Your task to perform on an android device: set the timer Image 0: 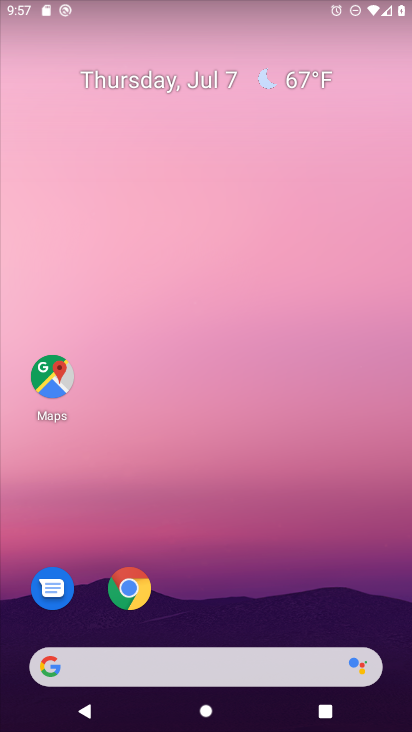
Step 0: drag from (228, 608) to (224, 20)
Your task to perform on an android device: set the timer Image 1: 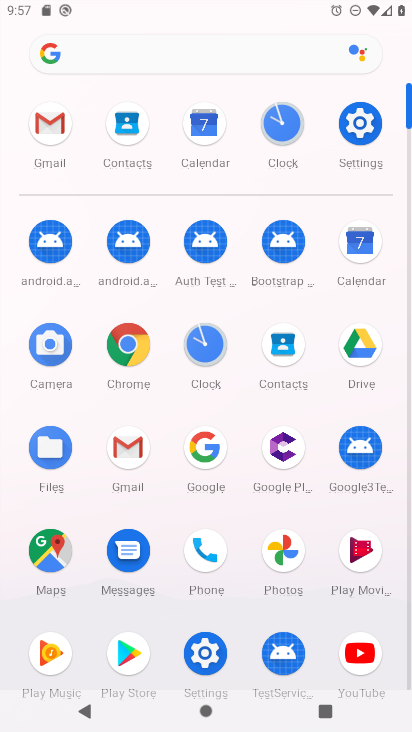
Step 1: click (283, 125)
Your task to perform on an android device: set the timer Image 2: 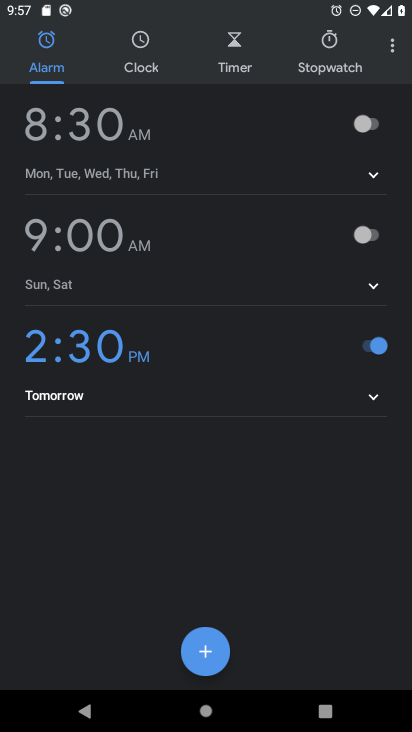
Step 2: click (237, 45)
Your task to perform on an android device: set the timer Image 3: 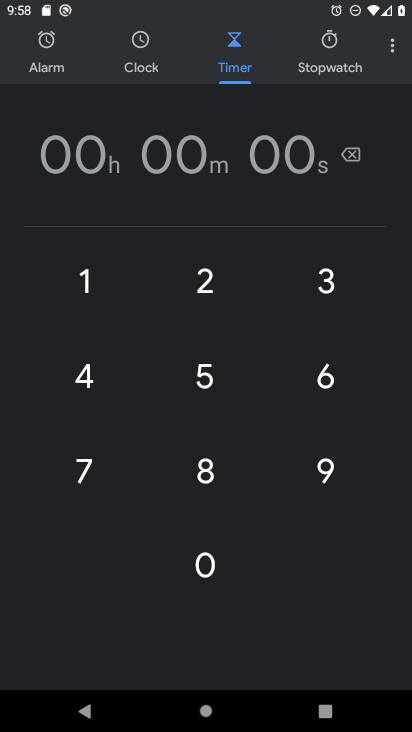
Step 3: type "1357"
Your task to perform on an android device: set the timer Image 4: 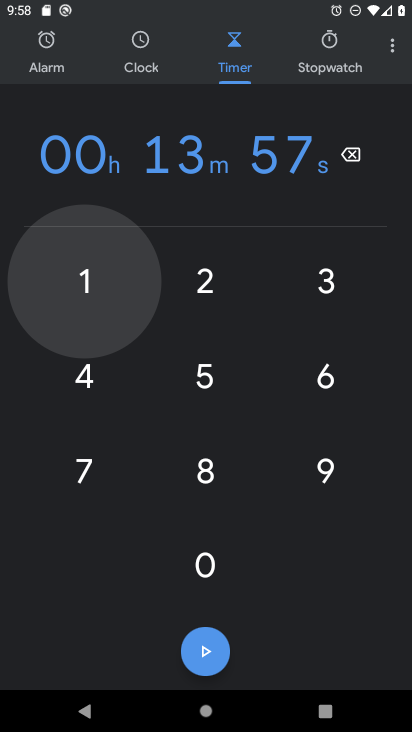
Step 4: click (209, 647)
Your task to perform on an android device: set the timer Image 5: 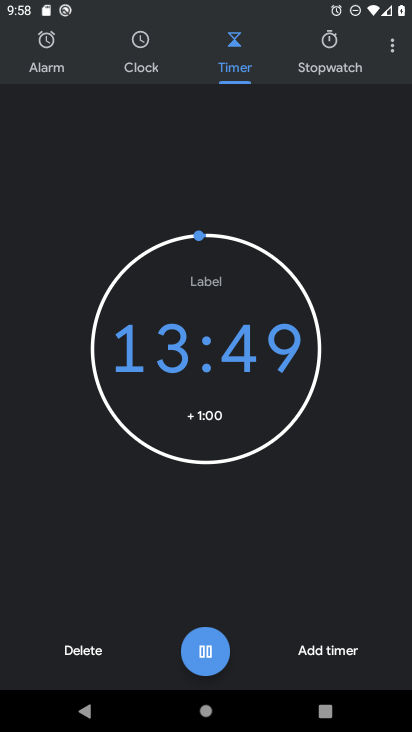
Step 5: click (209, 647)
Your task to perform on an android device: set the timer Image 6: 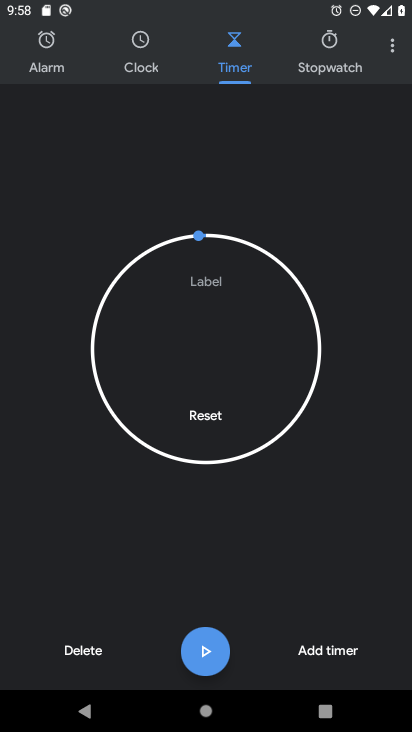
Step 6: task complete